Your task to perform on an android device: Open eBay Image 0: 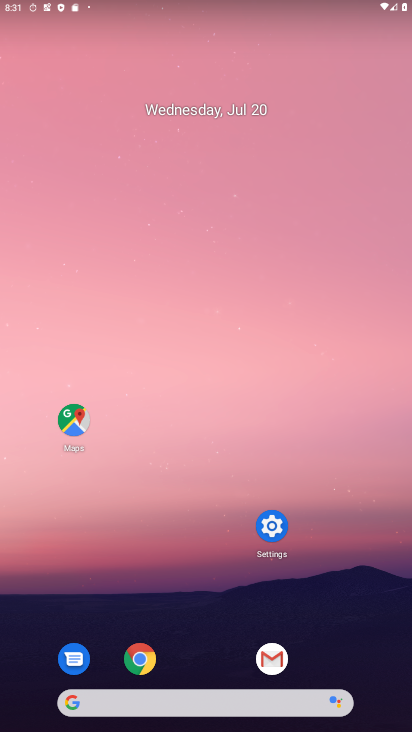
Step 0: click (139, 666)
Your task to perform on an android device: Open eBay Image 1: 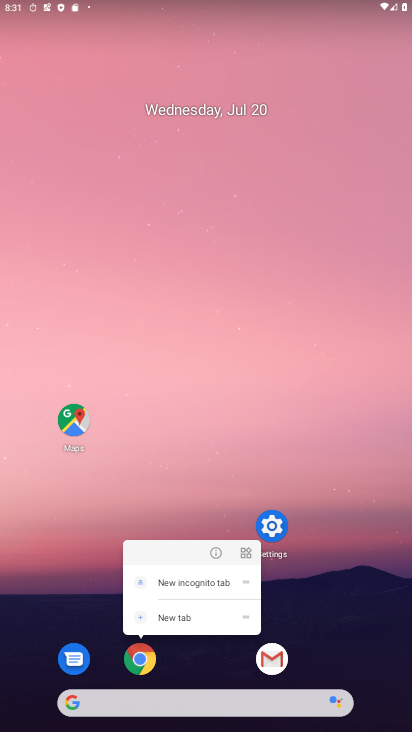
Step 1: click (137, 659)
Your task to perform on an android device: Open eBay Image 2: 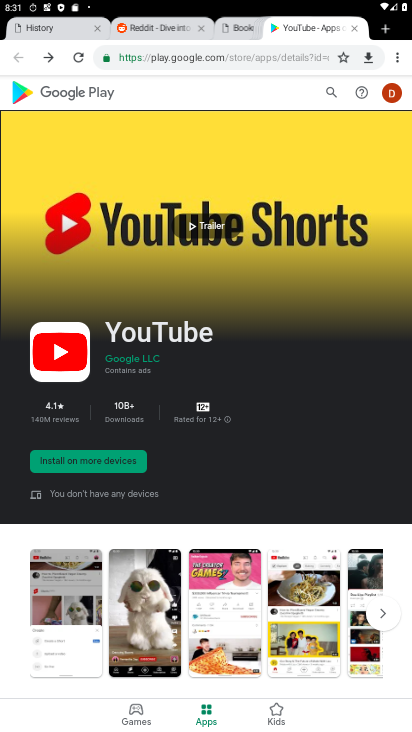
Step 2: click (382, 32)
Your task to perform on an android device: Open eBay Image 3: 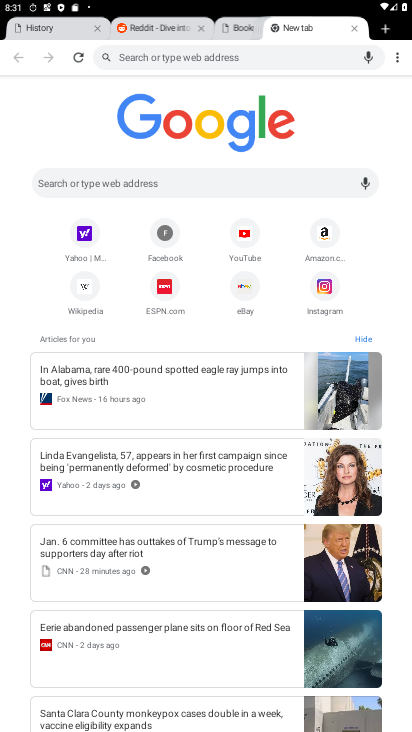
Step 3: click (242, 288)
Your task to perform on an android device: Open eBay Image 4: 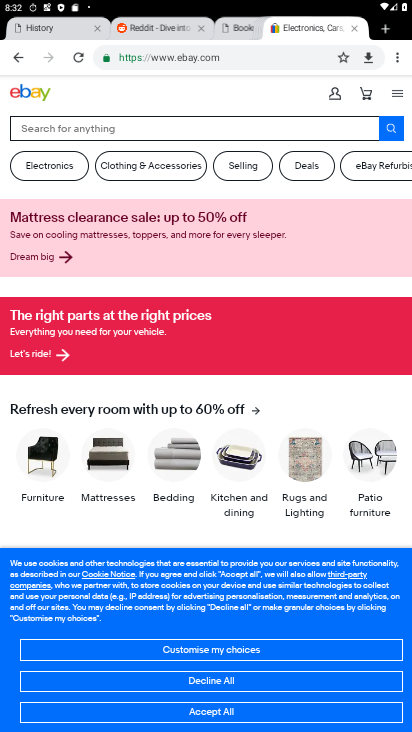
Step 4: task complete